Your task to perform on an android device: Go to CNN.com Image 0: 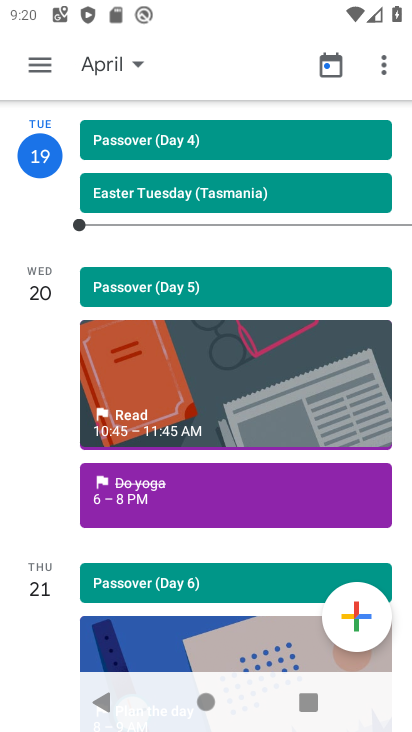
Step 0: press home button
Your task to perform on an android device: Go to CNN.com Image 1: 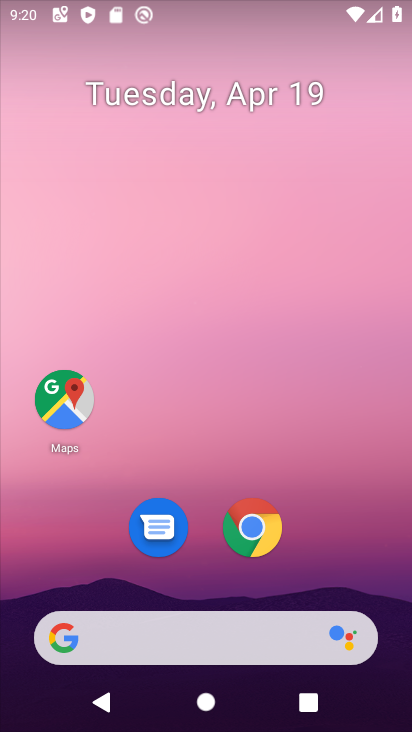
Step 1: drag from (242, 670) to (316, 151)
Your task to perform on an android device: Go to CNN.com Image 2: 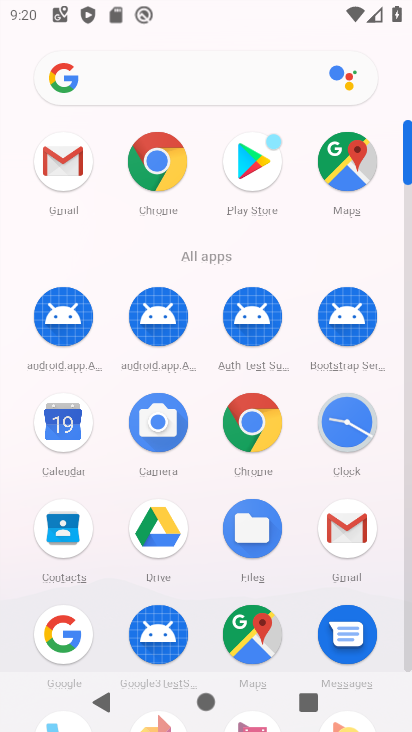
Step 2: click (156, 171)
Your task to perform on an android device: Go to CNN.com Image 3: 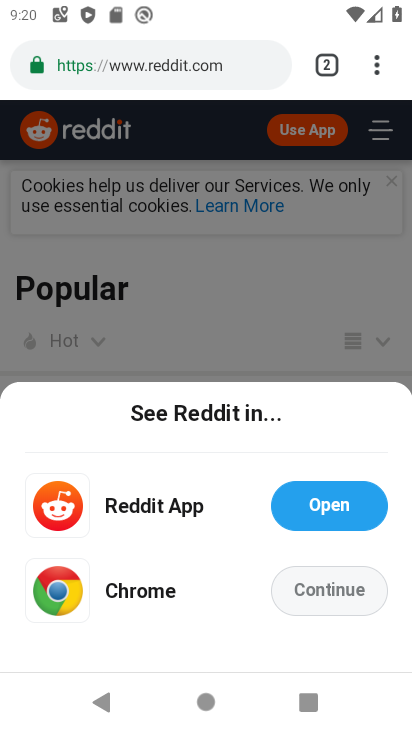
Step 3: click (161, 65)
Your task to perform on an android device: Go to CNN.com Image 4: 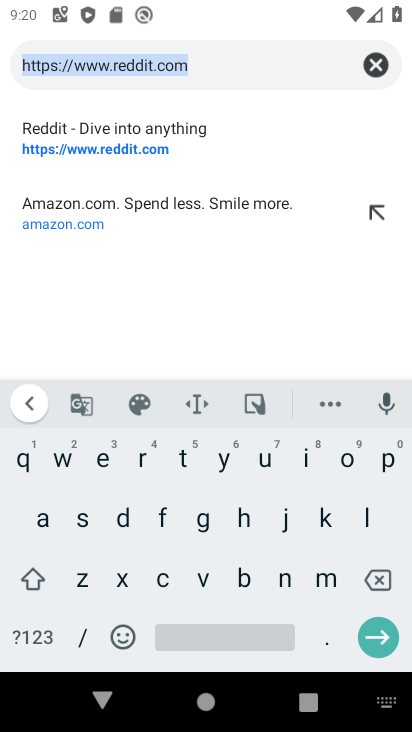
Step 4: click (374, 56)
Your task to perform on an android device: Go to CNN.com Image 5: 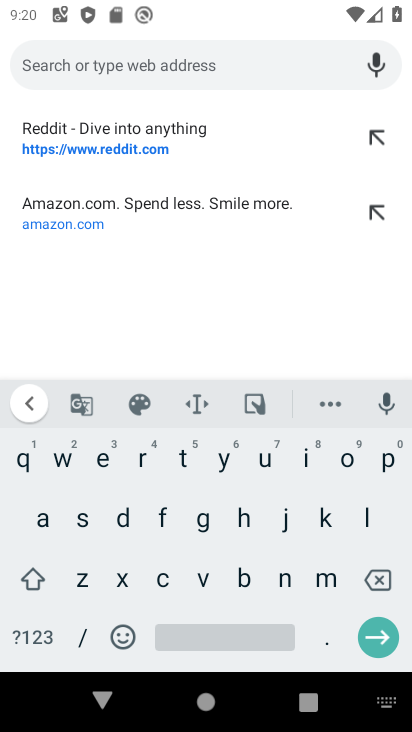
Step 5: click (163, 580)
Your task to perform on an android device: Go to CNN.com Image 6: 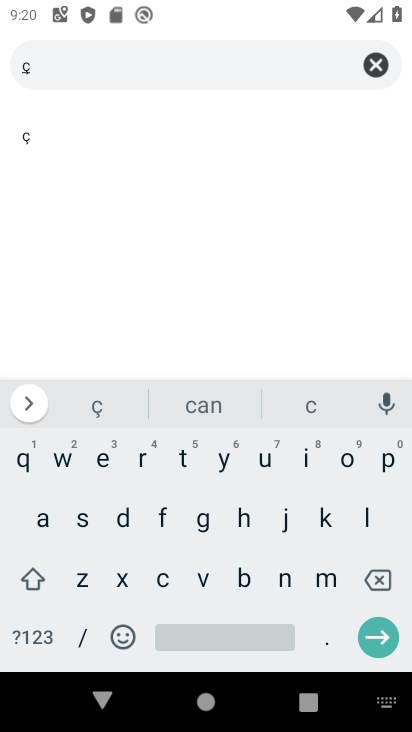
Step 6: click (288, 587)
Your task to perform on an android device: Go to CNN.com Image 7: 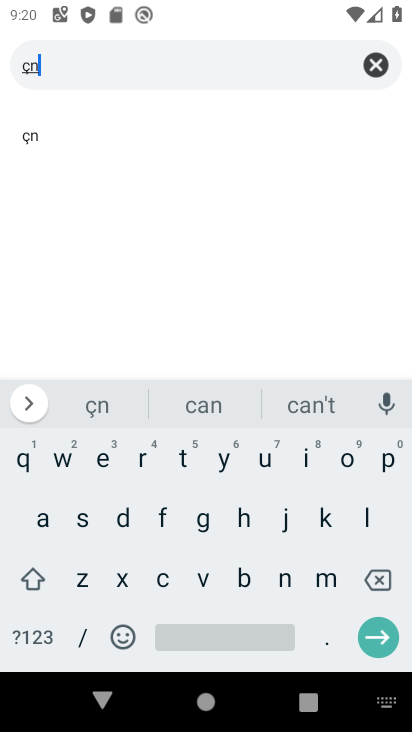
Step 7: click (288, 587)
Your task to perform on an android device: Go to CNN.com Image 8: 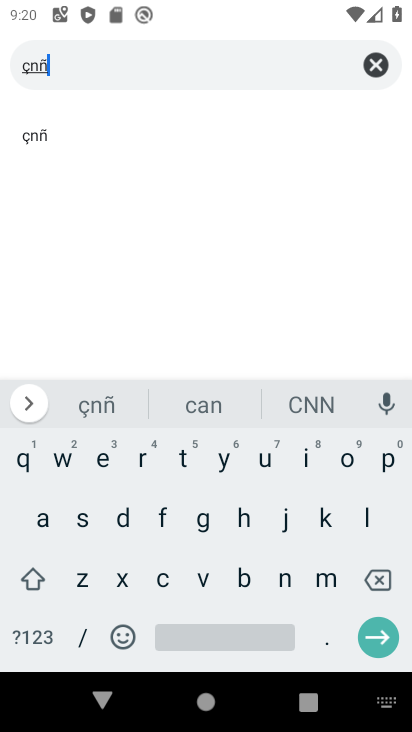
Step 8: click (382, 579)
Your task to perform on an android device: Go to CNN.com Image 9: 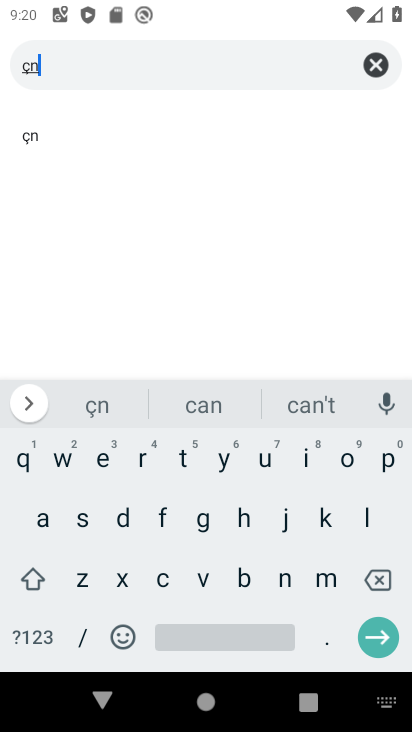
Step 9: click (278, 574)
Your task to perform on an android device: Go to CNN.com Image 10: 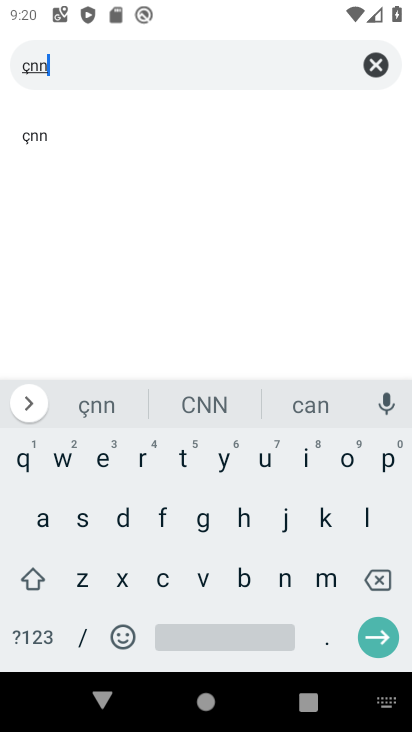
Step 10: click (208, 408)
Your task to perform on an android device: Go to CNN.com Image 11: 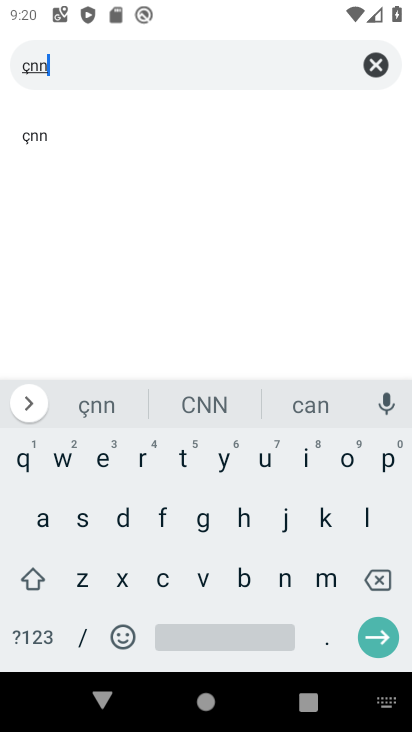
Step 11: click (193, 396)
Your task to perform on an android device: Go to CNN.com Image 12: 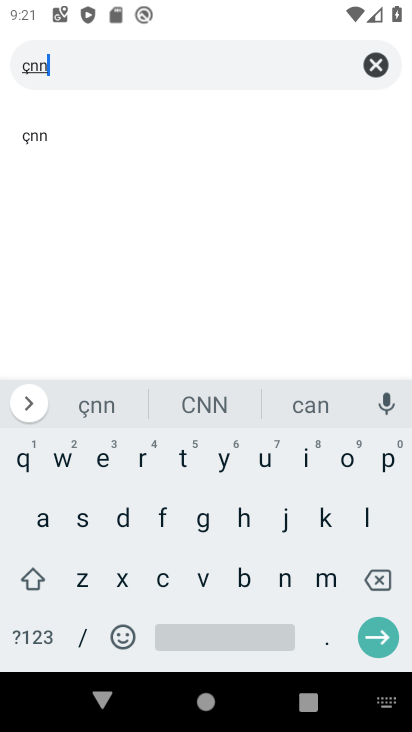
Step 12: click (207, 387)
Your task to perform on an android device: Go to CNN.com Image 13: 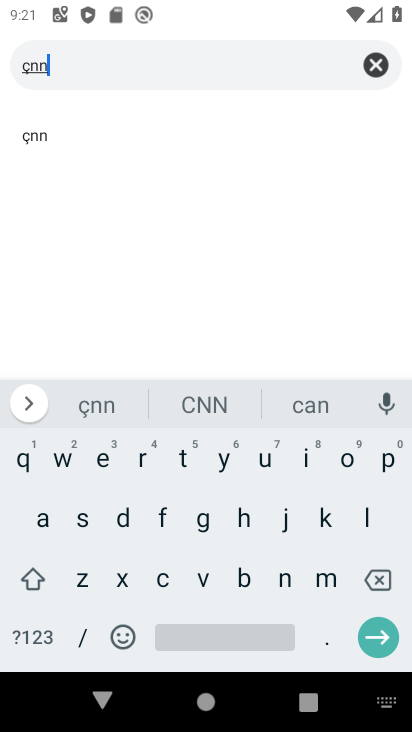
Step 13: click (206, 398)
Your task to perform on an android device: Go to CNN.com Image 14: 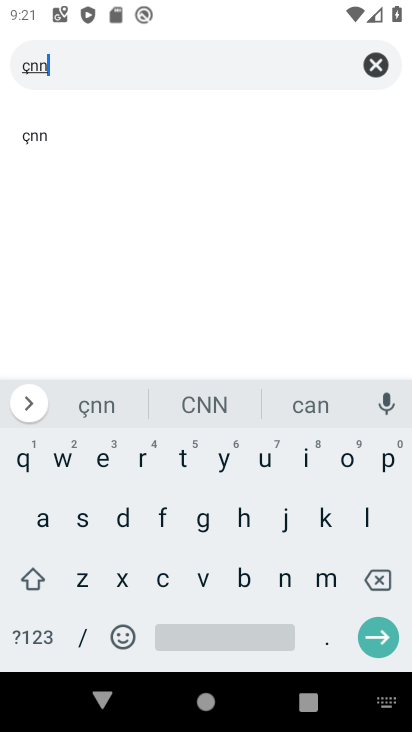
Step 14: click (374, 633)
Your task to perform on an android device: Go to CNN.com Image 15: 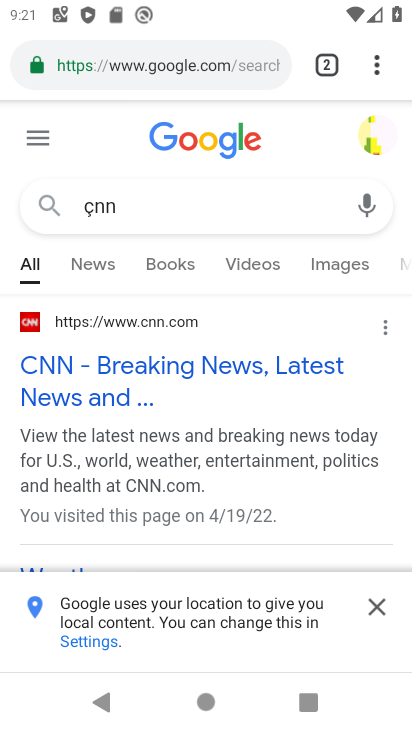
Step 15: click (80, 374)
Your task to perform on an android device: Go to CNN.com Image 16: 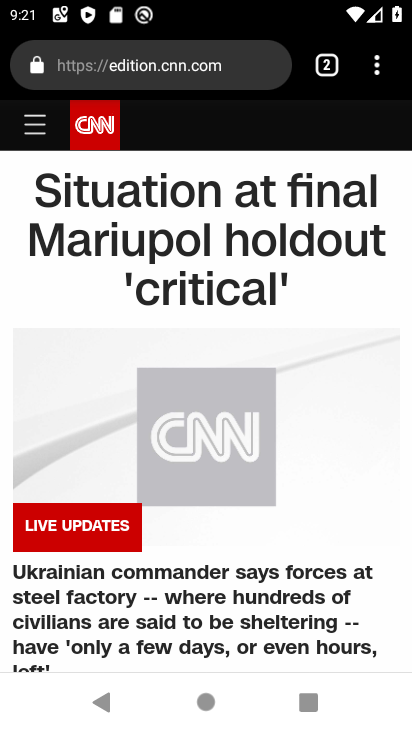
Step 16: task complete